Your task to perform on an android device: Open calendar and show me the fourth week of next month Image 0: 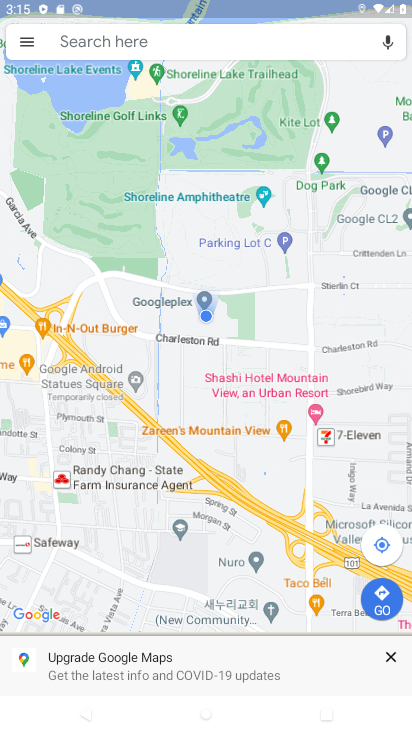
Step 0: press home button
Your task to perform on an android device: Open calendar and show me the fourth week of next month Image 1: 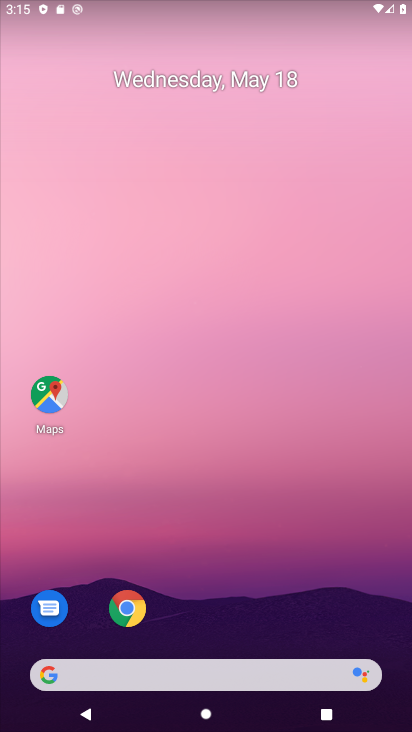
Step 1: click (217, 73)
Your task to perform on an android device: Open calendar and show me the fourth week of next month Image 2: 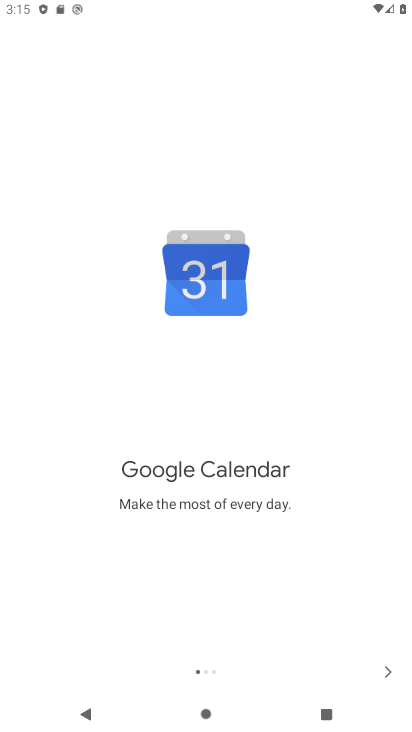
Step 2: click (396, 682)
Your task to perform on an android device: Open calendar and show me the fourth week of next month Image 3: 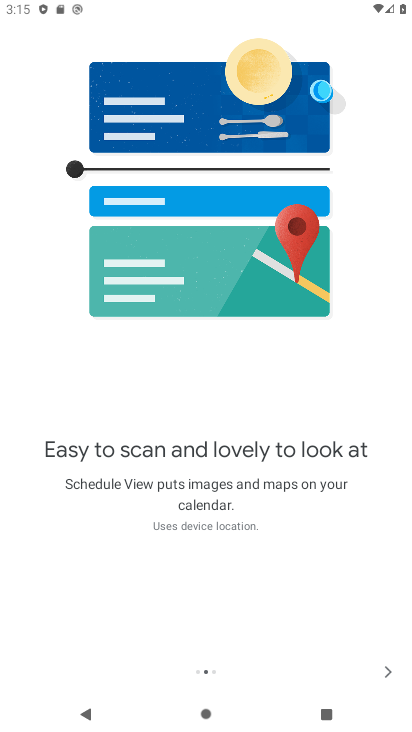
Step 3: click (396, 682)
Your task to perform on an android device: Open calendar and show me the fourth week of next month Image 4: 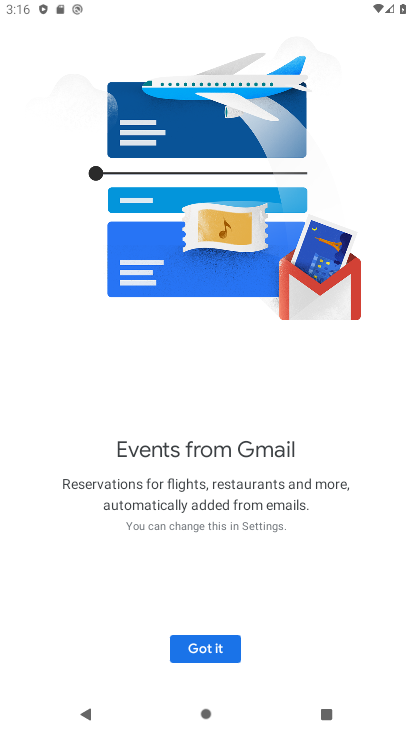
Step 4: click (186, 642)
Your task to perform on an android device: Open calendar and show me the fourth week of next month Image 5: 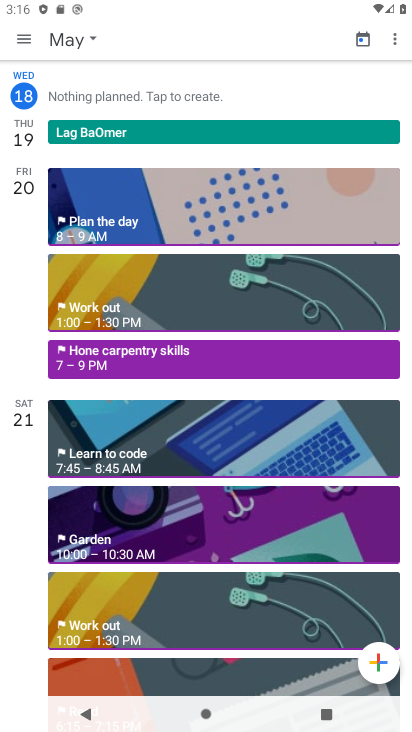
Step 5: click (87, 44)
Your task to perform on an android device: Open calendar and show me the fourth week of next month Image 6: 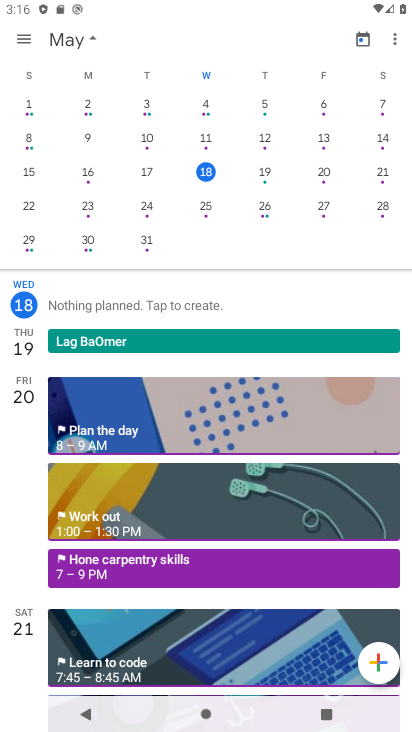
Step 6: drag from (396, 193) to (55, 199)
Your task to perform on an android device: Open calendar and show me the fourth week of next month Image 7: 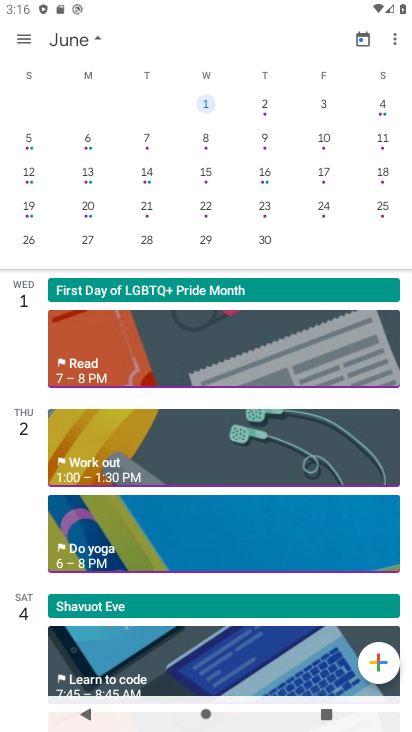
Step 7: click (203, 210)
Your task to perform on an android device: Open calendar and show me the fourth week of next month Image 8: 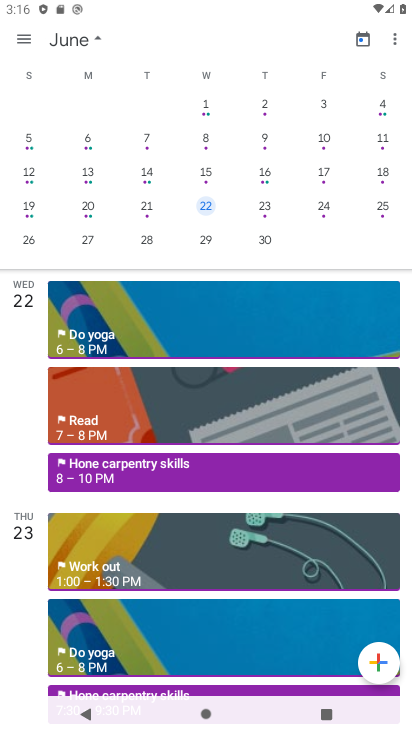
Step 8: task complete